Your task to perform on an android device: Who is the president of France? Image 0: 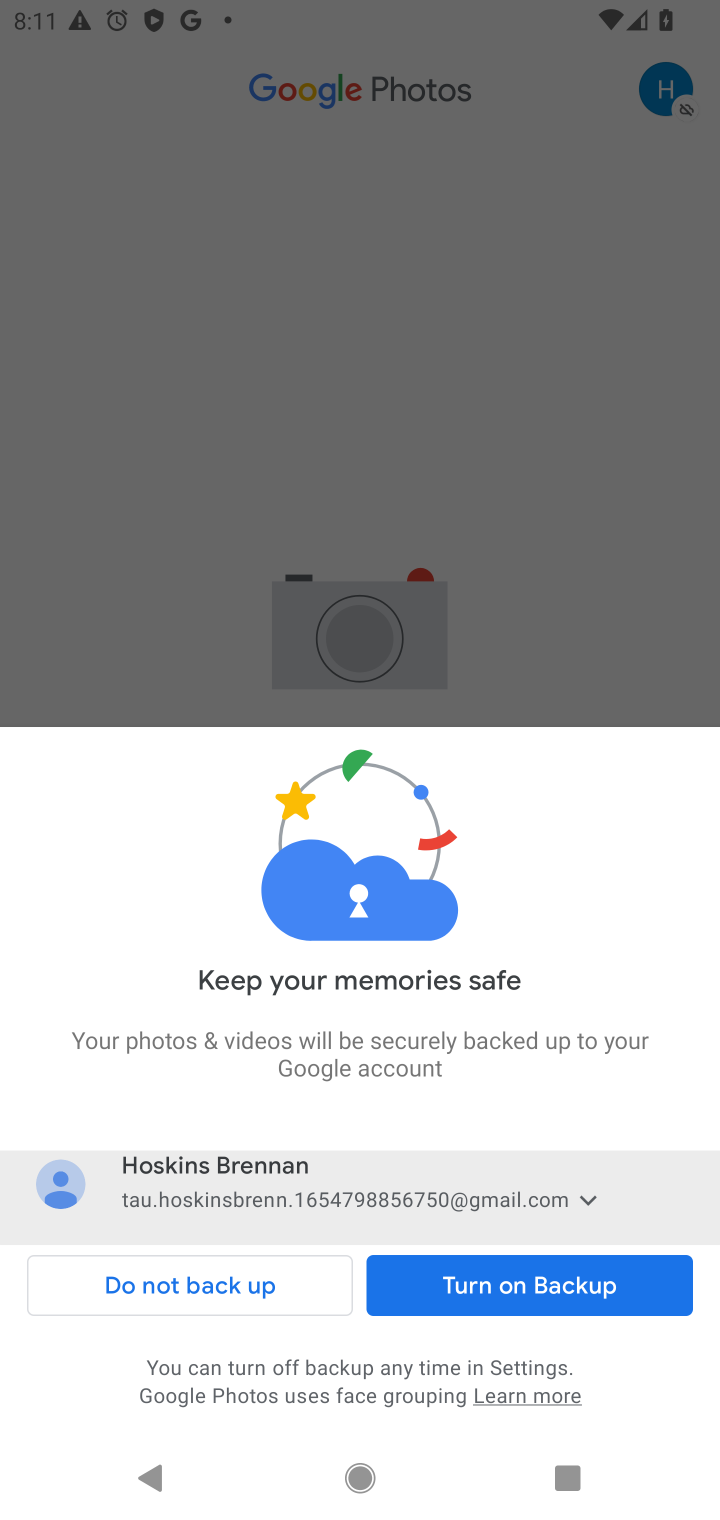
Step 0: press home button
Your task to perform on an android device: Who is the president of France? Image 1: 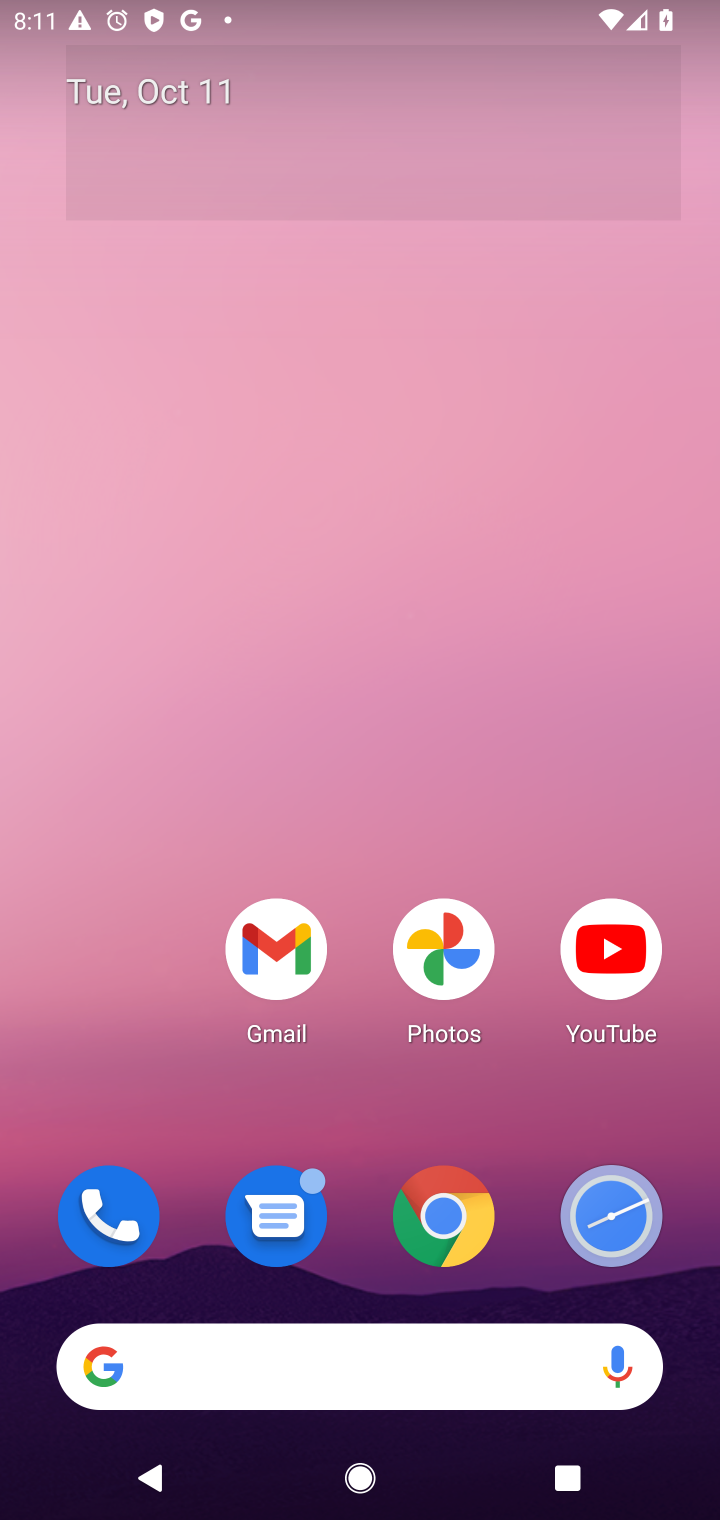
Step 1: click (404, 1243)
Your task to perform on an android device: Who is the president of France? Image 2: 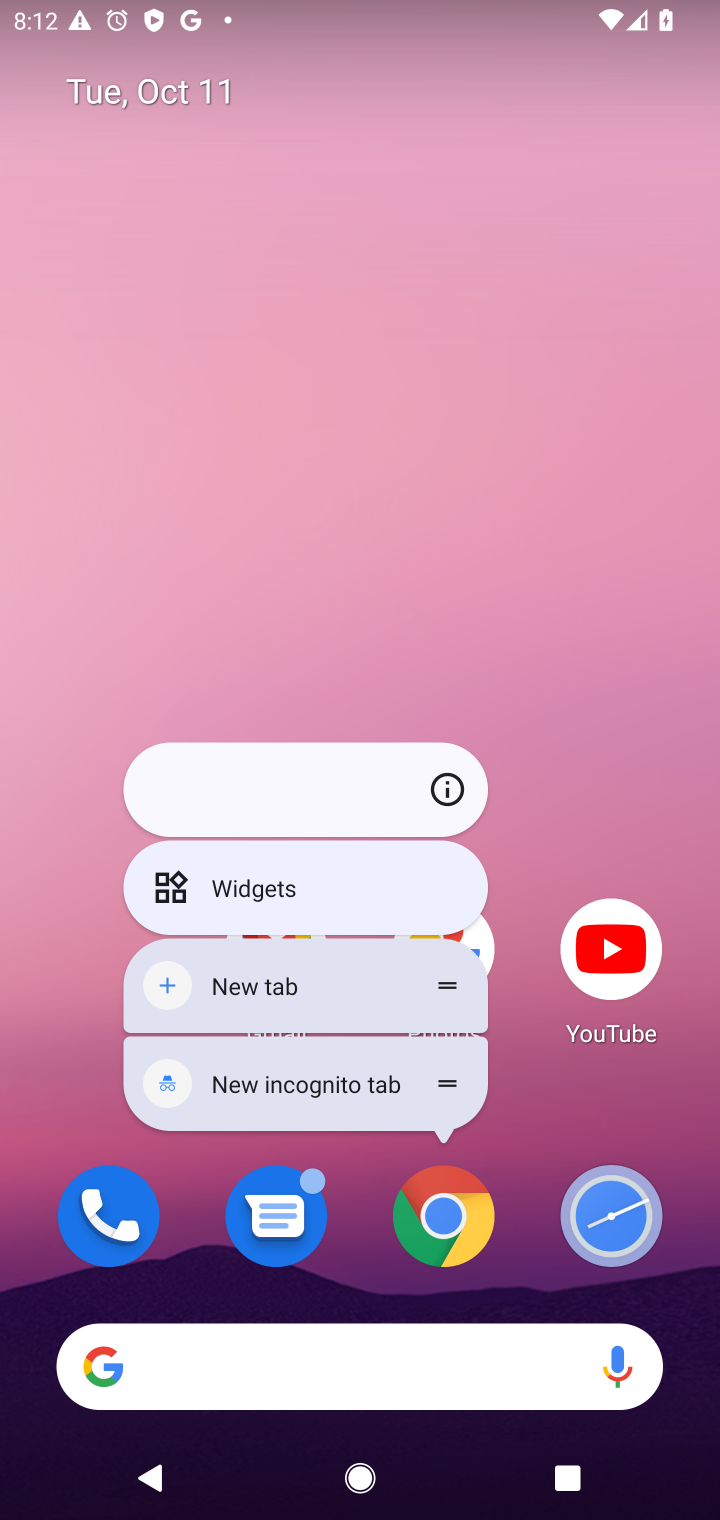
Step 2: click (438, 1212)
Your task to perform on an android device: Who is the president of France? Image 3: 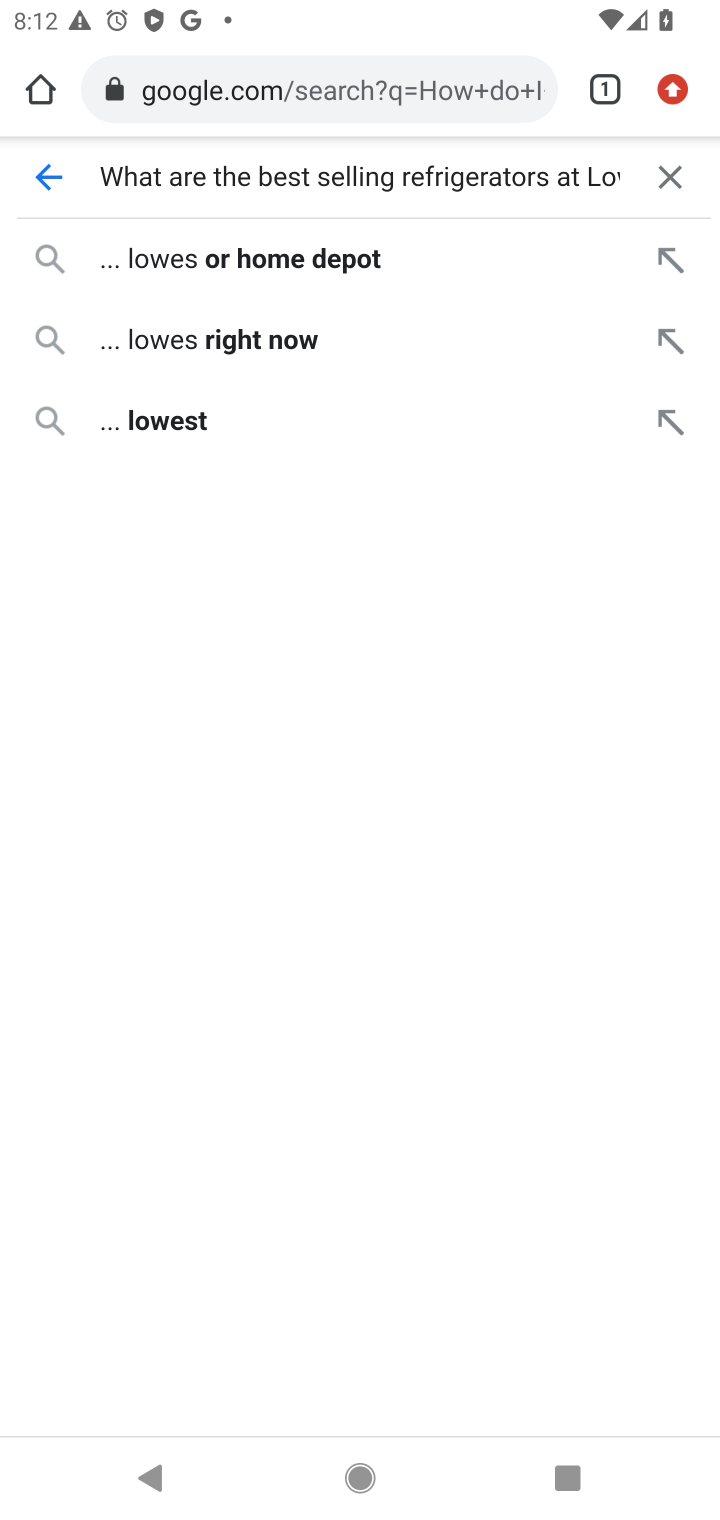
Step 3: click (675, 175)
Your task to perform on an android device: Who is the president of France? Image 4: 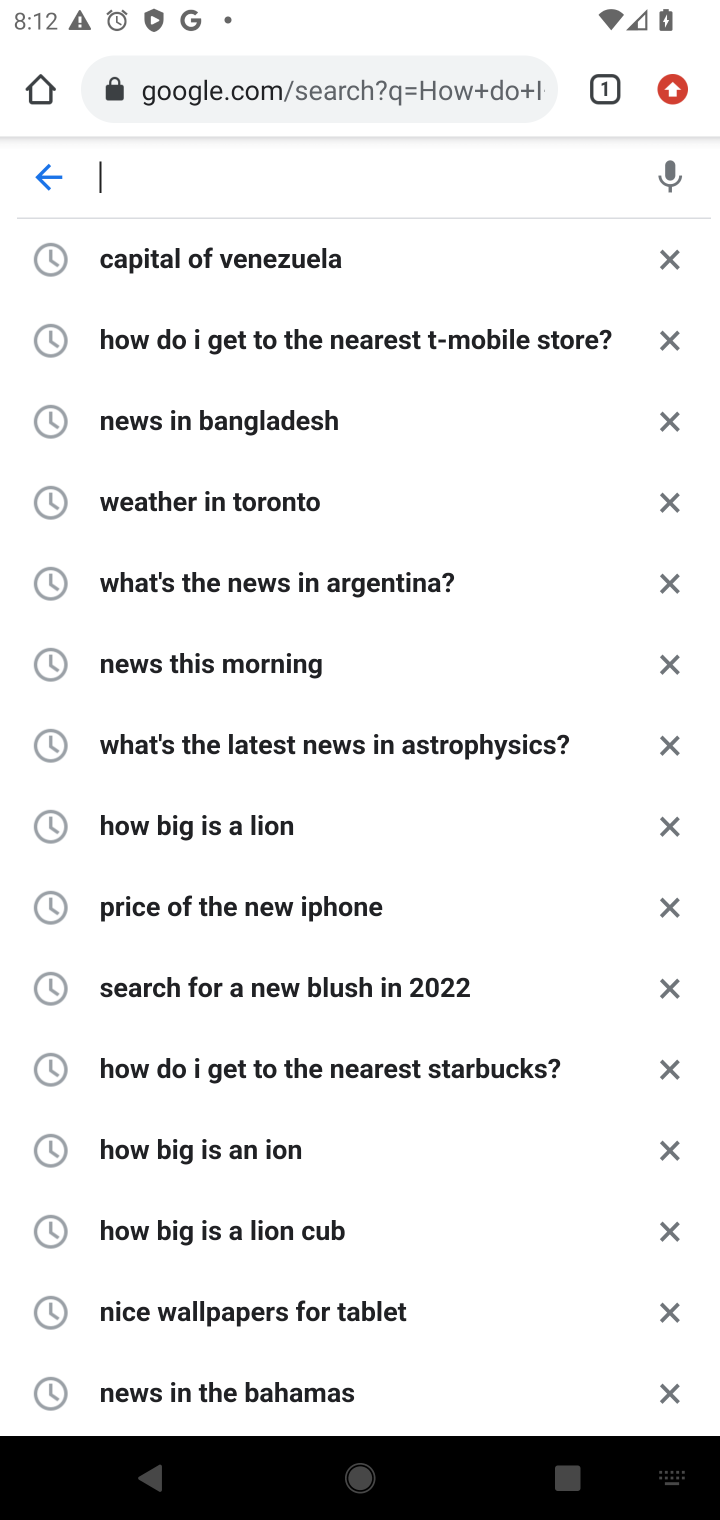
Step 4: type "Who is the president of France?"
Your task to perform on an android device: Who is the president of France? Image 5: 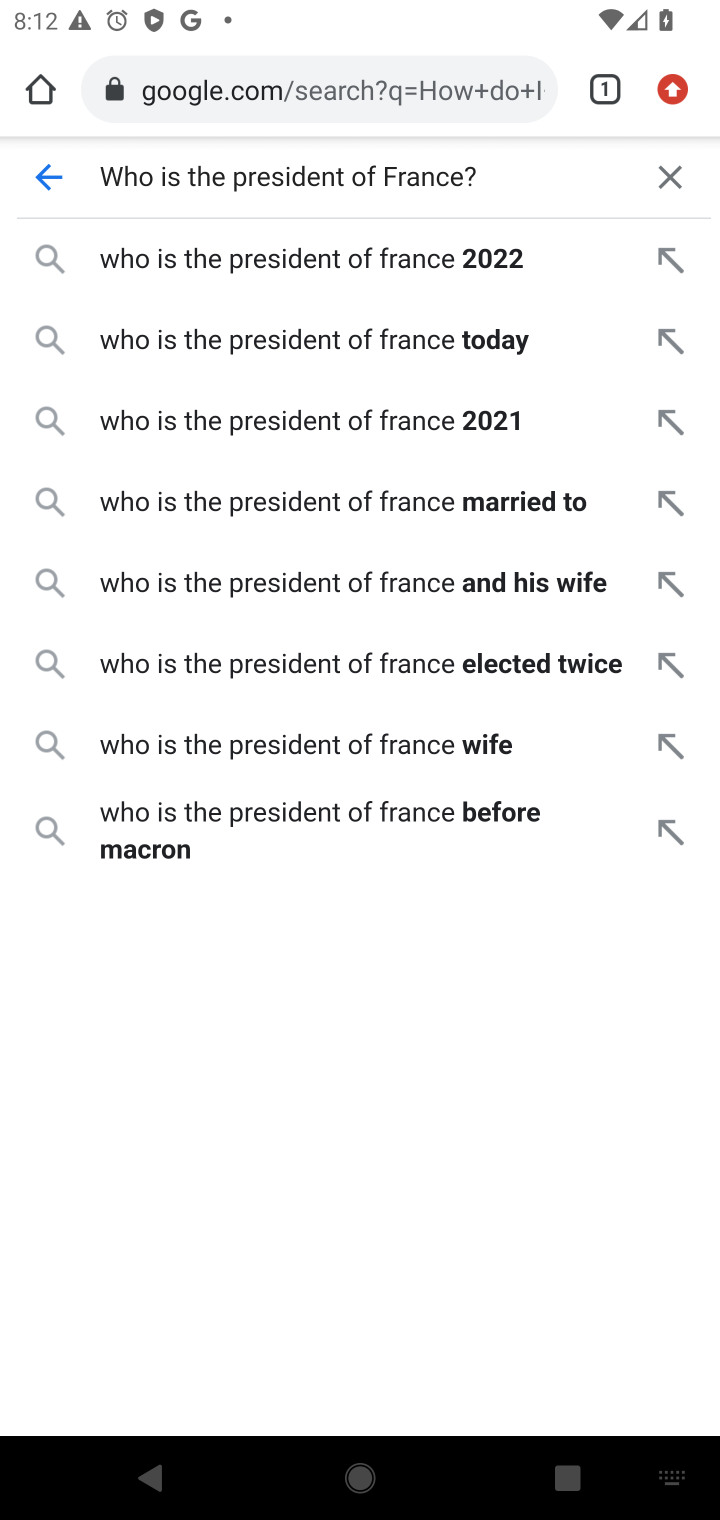
Step 5: press enter
Your task to perform on an android device: Who is the president of France? Image 6: 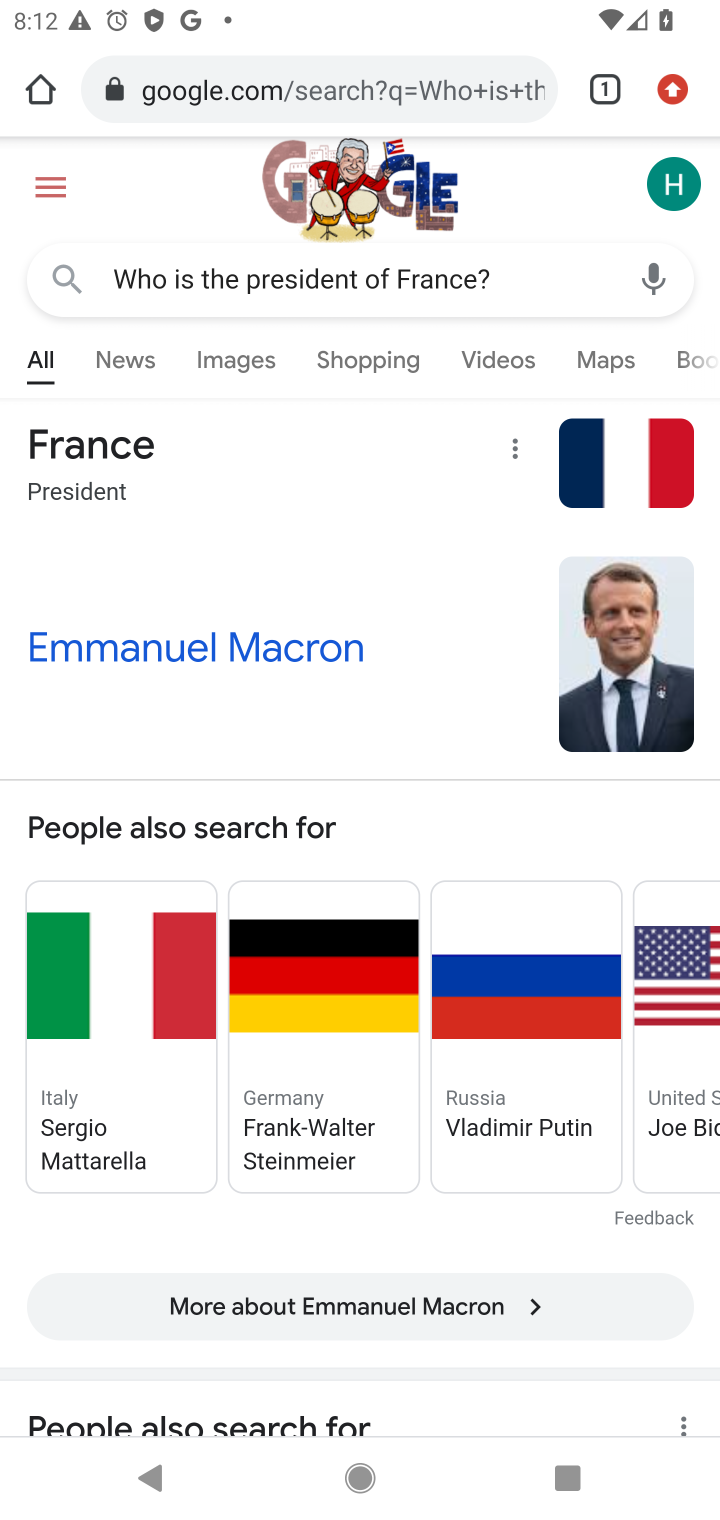
Step 6: task complete